Your task to perform on an android device: see tabs open on other devices in the chrome app Image 0: 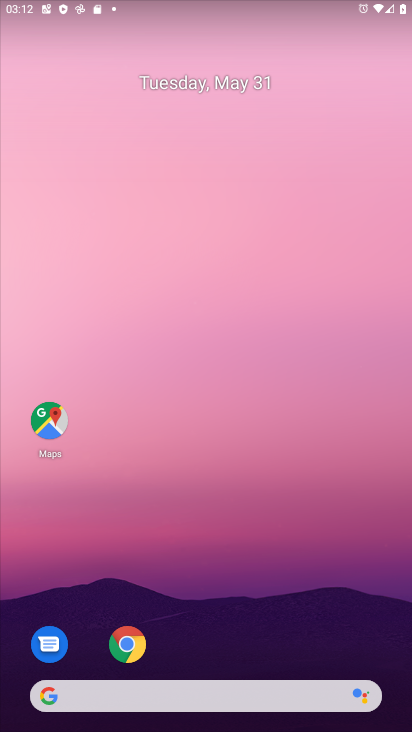
Step 0: click (123, 648)
Your task to perform on an android device: see tabs open on other devices in the chrome app Image 1: 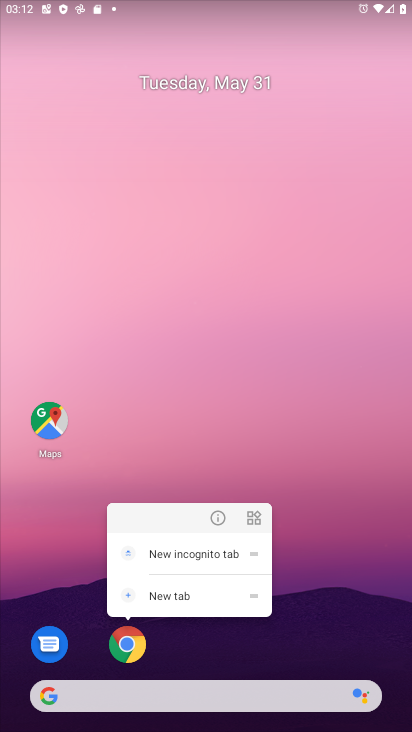
Step 1: click (126, 645)
Your task to perform on an android device: see tabs open on other devices in the chrome app Image 2: 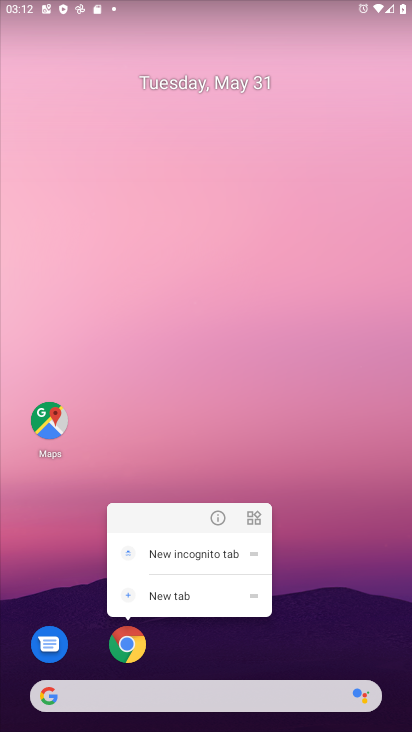
Step 2: click (128, 642)
Your task to perform on an android device: see tabs open on other devices in the chrome app Image 3: 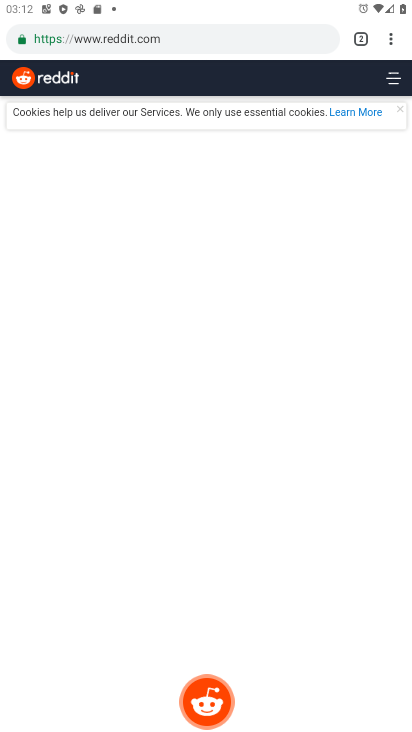
Step 3: task complete